Your task to perform on an android device: Go to Google Image 0: 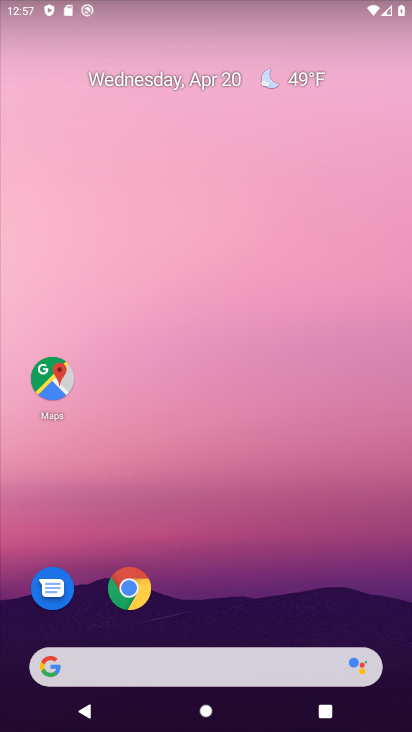
Step 0: drag from (194, 637) to (301, 95)
Your task to perform on an android device: Go to Google Image 1: 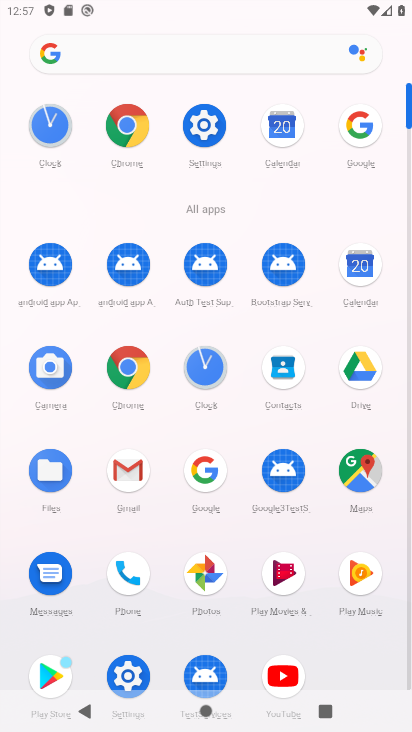
Step 1: click (362, 126)
Your task to perform on an android device: Go to Google Image 2: 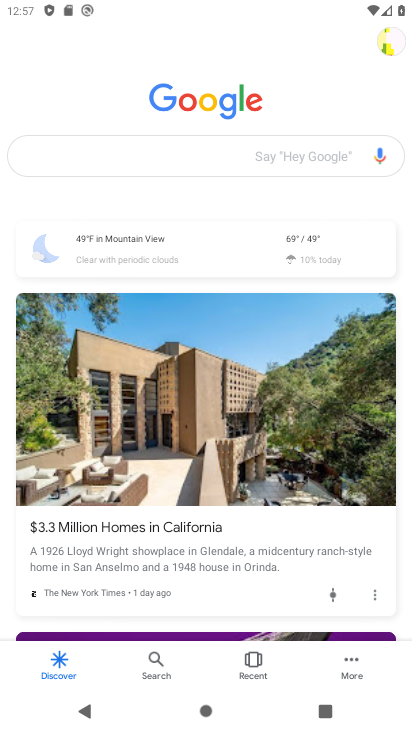
Step 2: task complete